Your task to perform on an android device: turn on data saver in the chrome app Image 0: 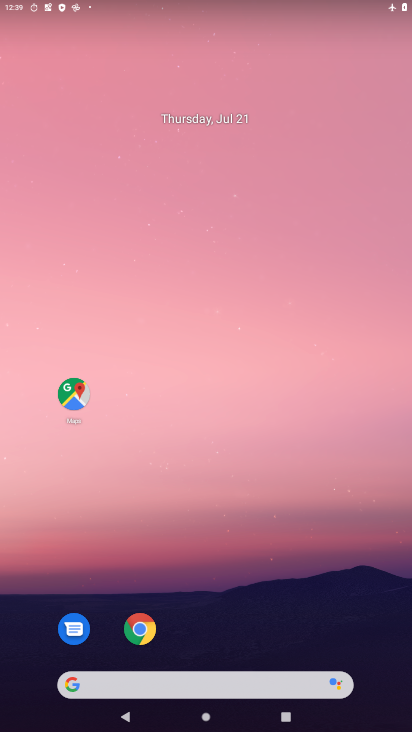
Step 0: drag from (205, 659) to (174, 57)
Your task to perform on an android device: turn on data saver in the chrome app Image 1: 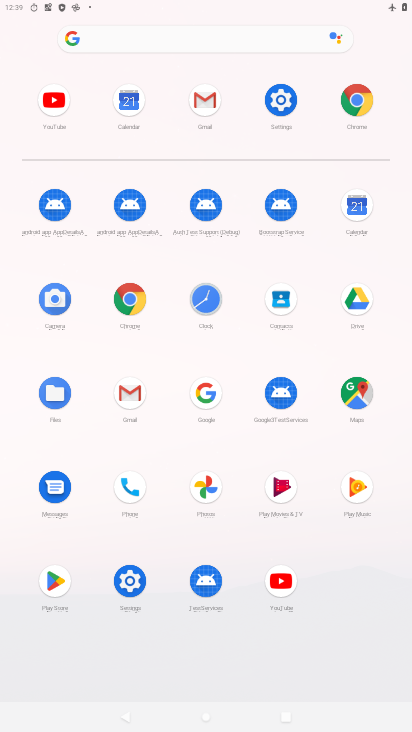
Step 1: click (133, 301)
Your task to perform on an android device: turn on data saver in the chrome app Image 2: 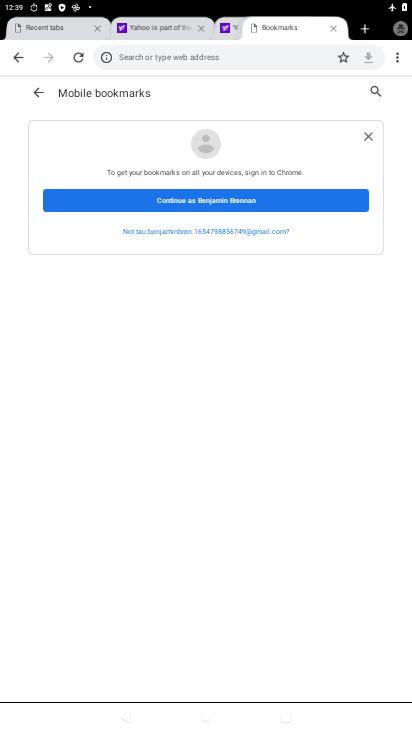
Step 2: drag from (394, 54) to (290, 261)
Your task to perform on an android device: turn on data saver in the chrome app Image 3: 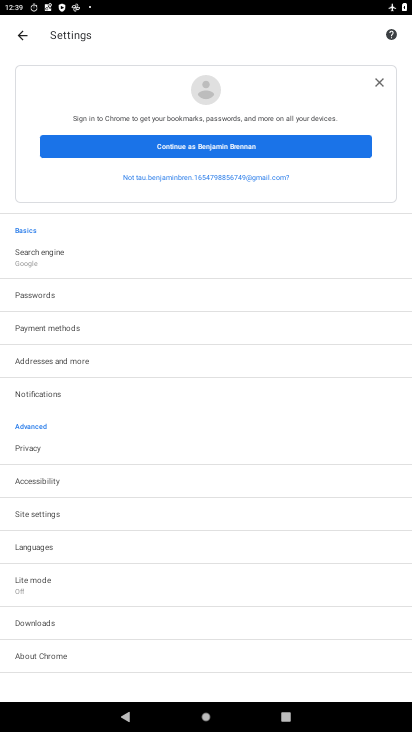
Step 3: click (60, 590)
Your task to perform on an android device: turn on data saver in the chrome app Image 4: 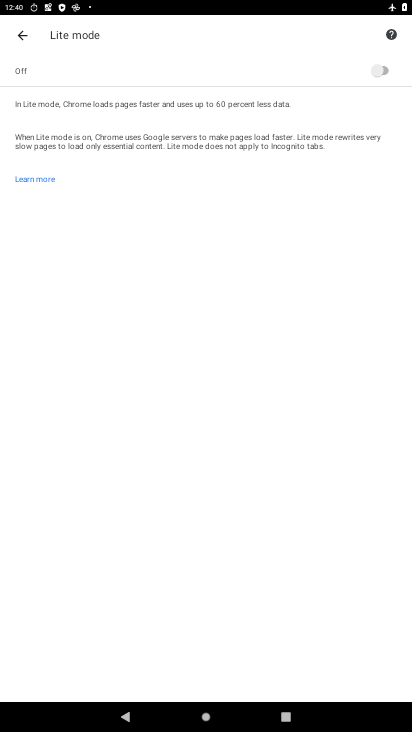
Step 4: click (382, 66)
Your task to perform on an android device: turn on data saver in the chrome app Image 5: 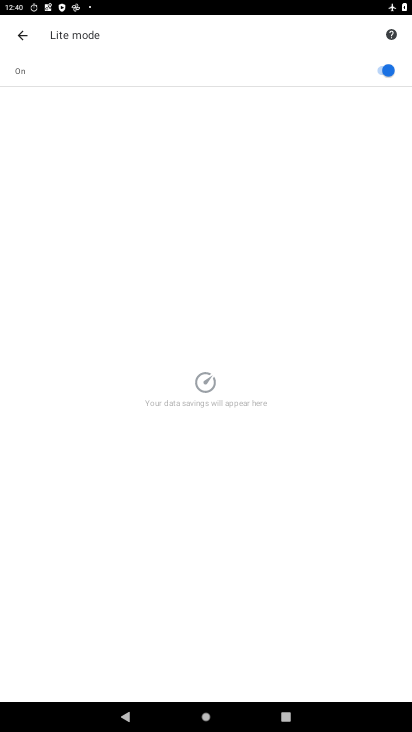
Step 5: task complete